Your task to perform on an android device: Open Amazon Image 0: 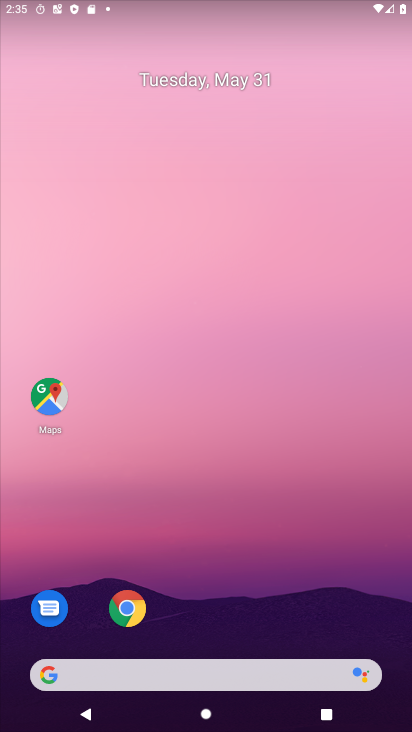
Step 0: click (135, 610)
Your task to perform on an android device: Open Amazon Image 1: 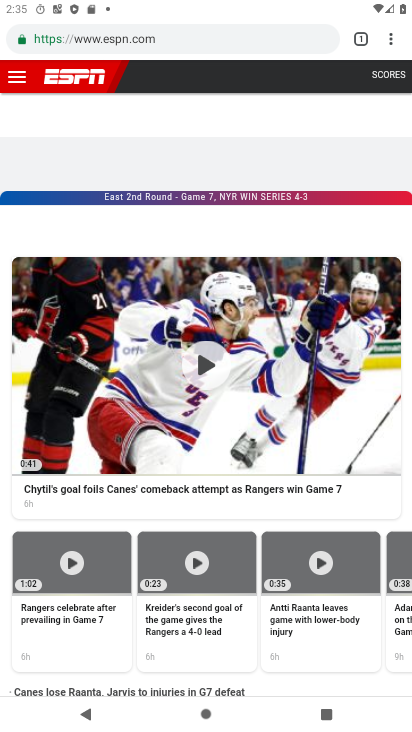
Step 1: click (194, 40)
Your task to perform on an android device: Open Amazon Image 2: 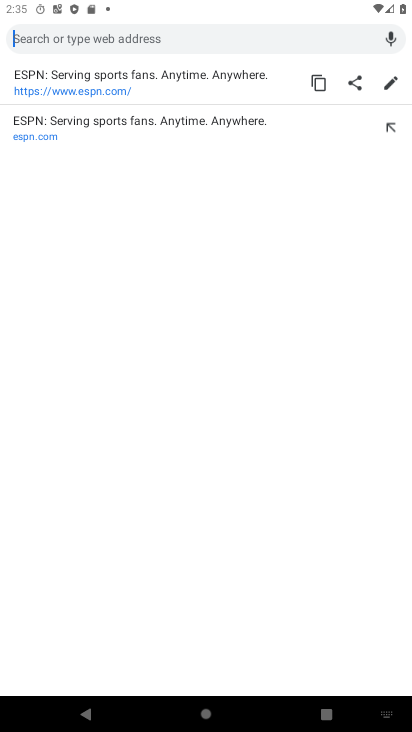
Step 2: type "Amazon"
Your task to perform on an android device: Open Amazon Image 3: 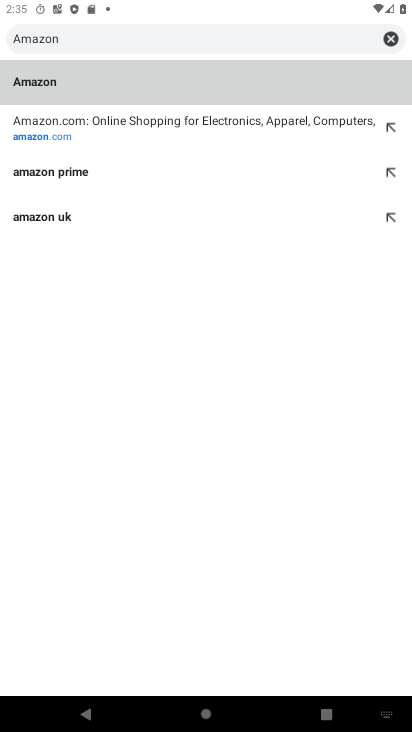
Step 3: click (148, 119)
Your task to perform on an android device: Open Amazon Image 4: 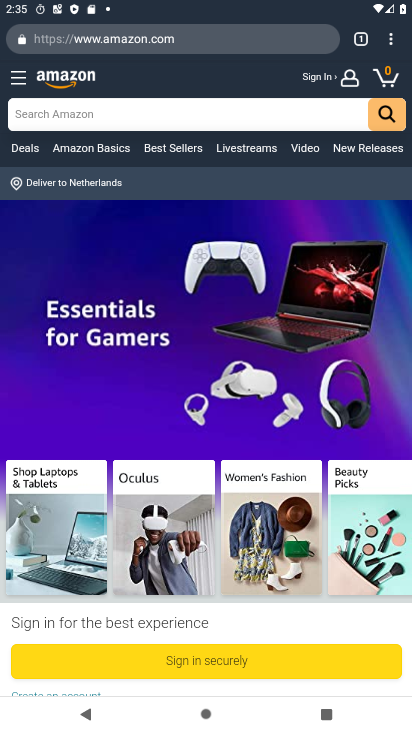
Step 4: task complete